Your task to perform on an android device: toggle sleep mode Image 0: 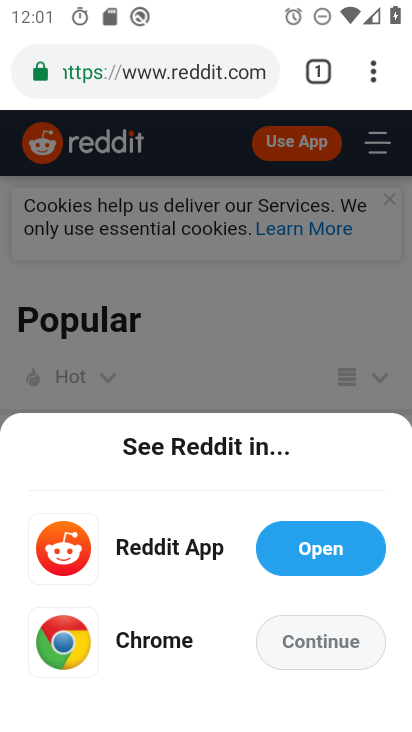
Step 0: press home button
Your task to perform on an android device: toggle sleep mode Image 1: 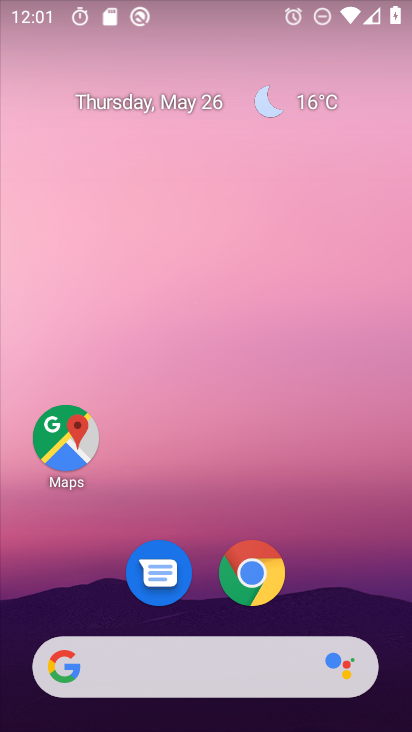
Step 1: drag from (329, 598) to (248, 13)
Your task to perform on an android device: toggle sleep mode Image 2: 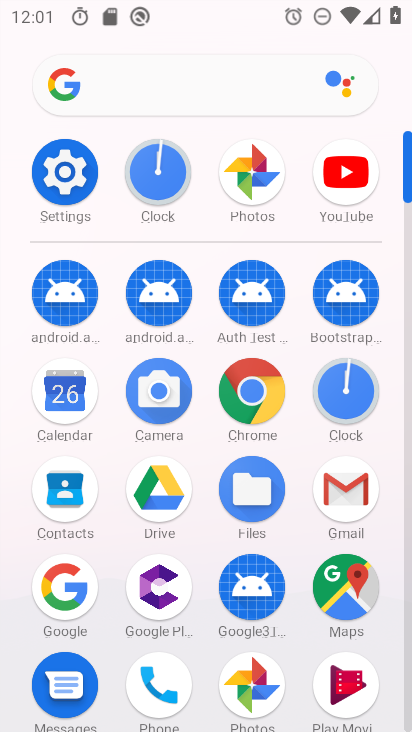
Step 2: click (65, 170)
Your task to perform on an android device: toggle sleep mode Image 3: 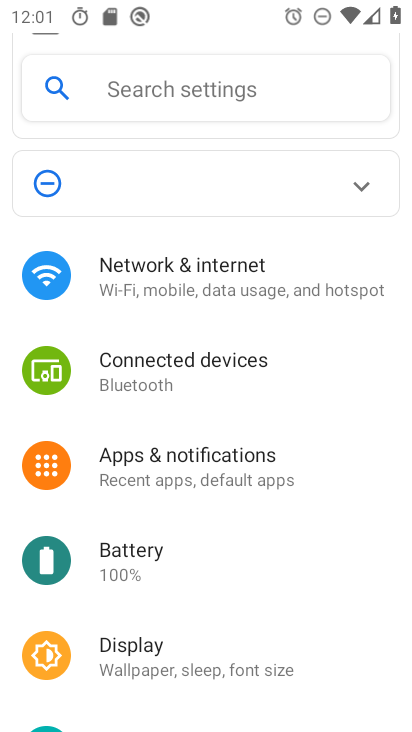
Step 3: click (129, 657)
Your task to perform on an android device: toggle sleep mode Image 4: 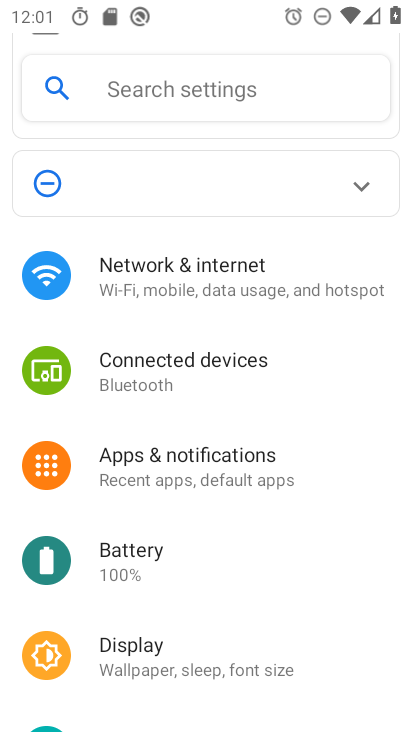
Step 4: click (130, 660)
Your task to perform on an android device: toggle sleep mode Image 5: 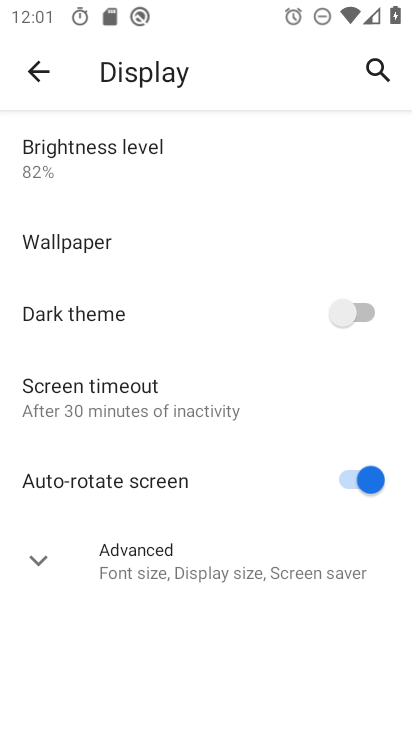
Step 5: click (35, 562)
Your task to perform on an android device: toggle sleep mode Image 6: 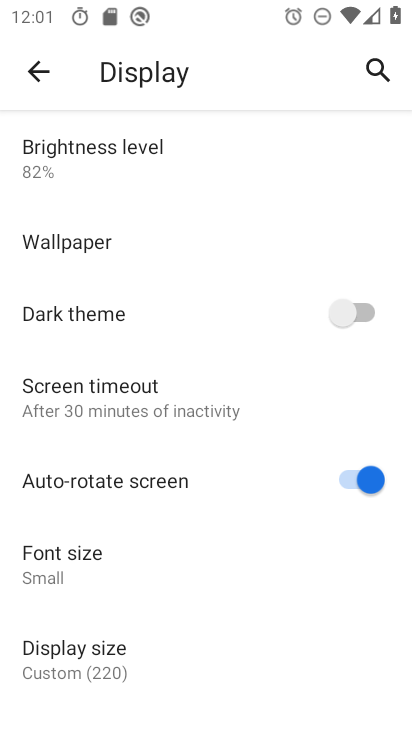
Step 6: task complete